Your task to perform on an android device: open sync settings in chrome Image 0: 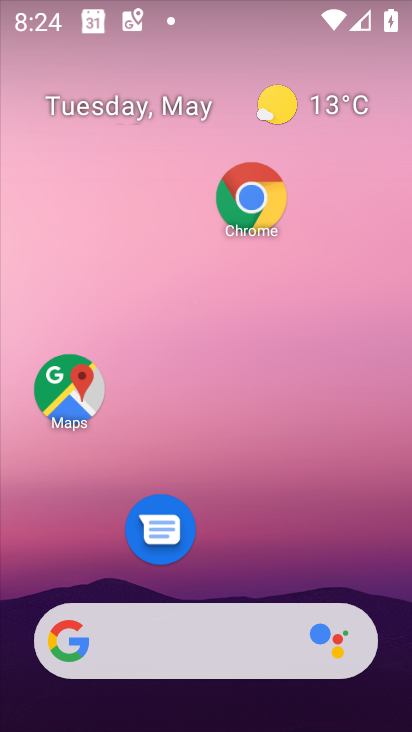
Step 0: click (269, 204)
Your task to perform on an android device: open sync settings in chrome Image 1: 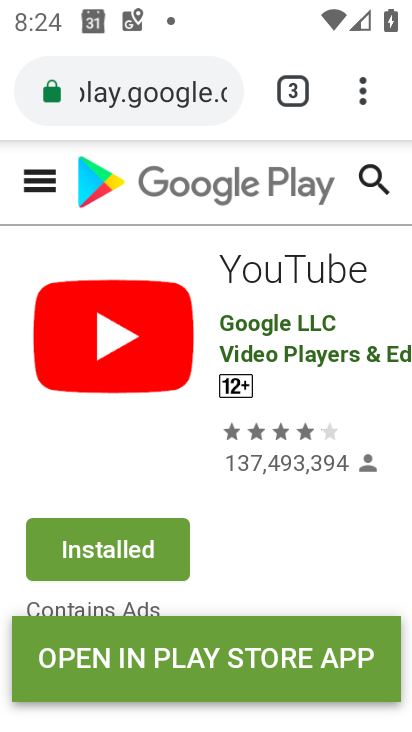
Step 1: press home button
Your task to perform on an android device: open sync settings in chrome Image 2: 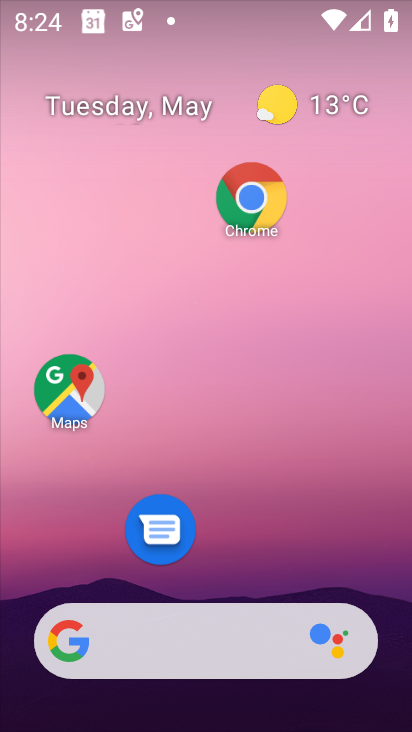
Step 2: click (255, 179)
Your task to perform on an android device: open sync settings in chrome Image 3: 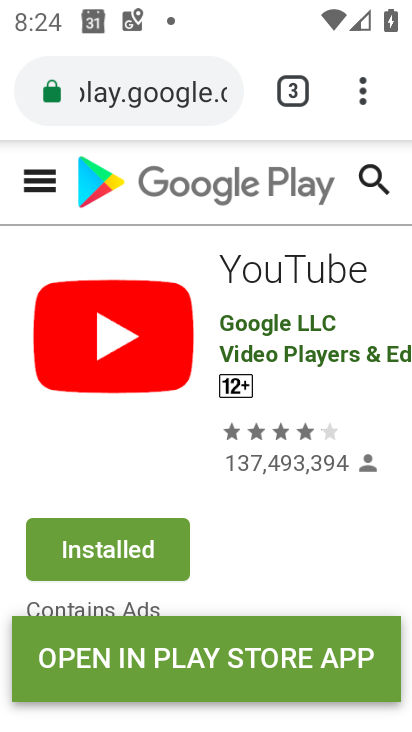
Step 3: click (360, 91)
Your task to perform on an android device: open sync settings in chrome Image 4: 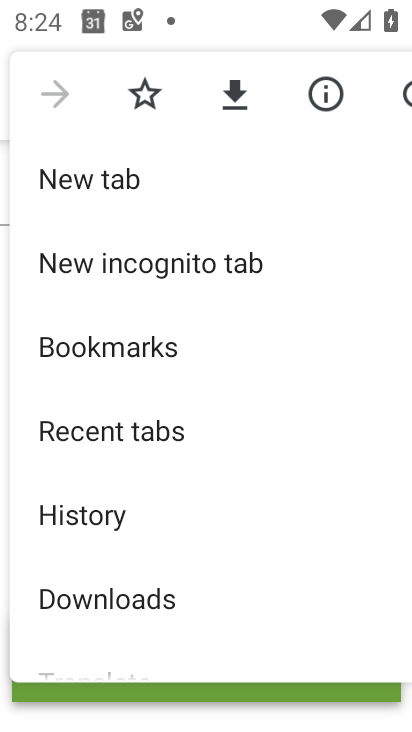
Step 4: drag from (201, 646) to (256, 256)
Your task to perform on an android device: open sync settings in chrome Image 5: 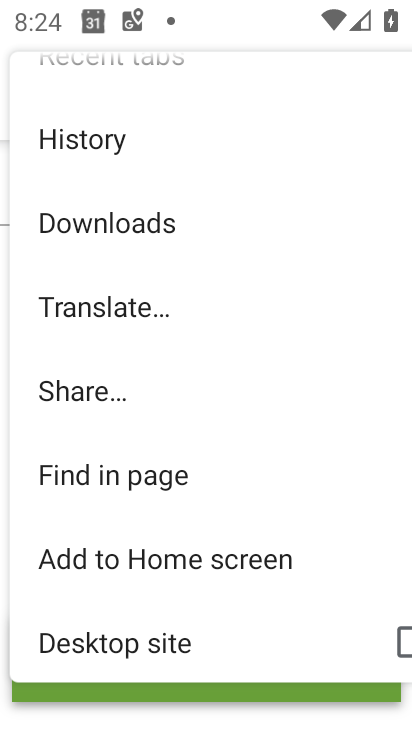
Step 5: drag from (250, 589) to (270, 287)
Your task to perform on an android device: open sync settings in chrome Image 6: 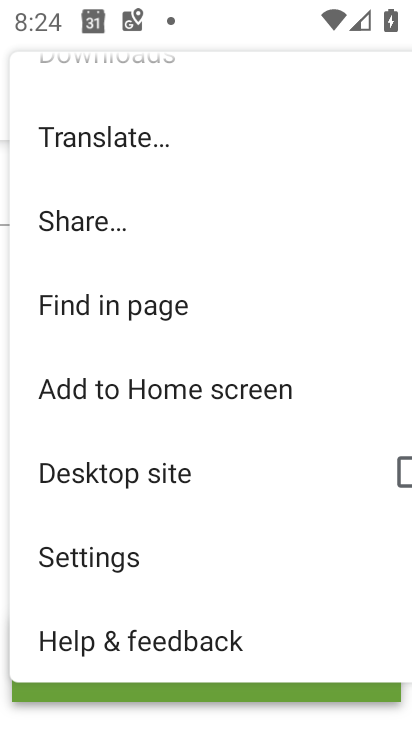
Step 6: click (169, 550)
Your task to perform on an android device: open sync settings in chrome Image 7: 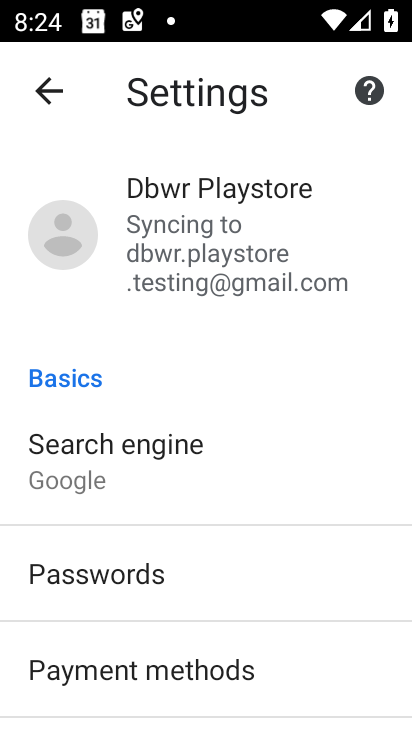
Step 7: drag from (292, 572) to (299, 386)
Your task to perform on an android device: open sync settings in chrome Image 8: 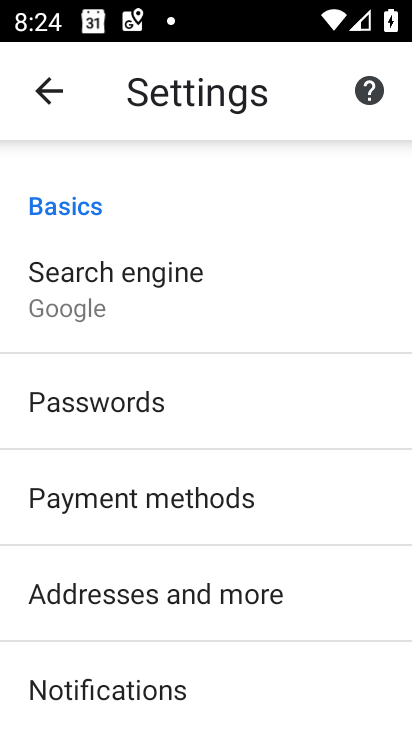
Step 8: drag from (237, 624) to (291, 236)
Your task to perform on an android device: open sync settings in chrome Image 9: 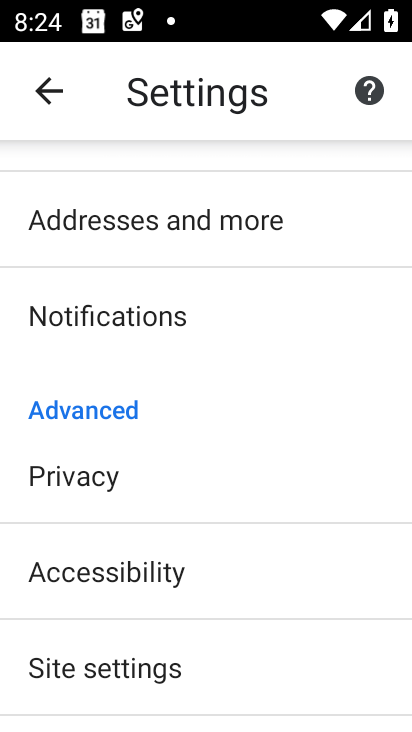
Step 9: drag from (256, 597) to (270, 387)
Your task to perform on an android device: open sync settings in chrome Image 10: 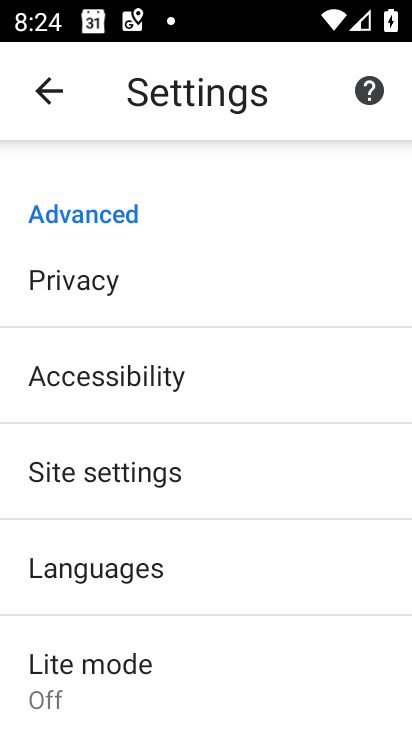
Step 10: drag from (239, 312) to (294, 696)
Your task to perform on an android device: open sync settings in chrome Image 11: 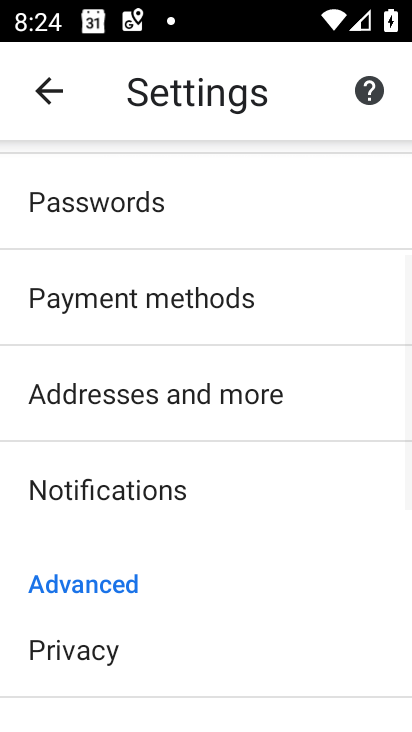
Step 11: drag from (261, 276) to (327, 727)
Your task to perform on an android device: open sync settings in chrome Image 12: 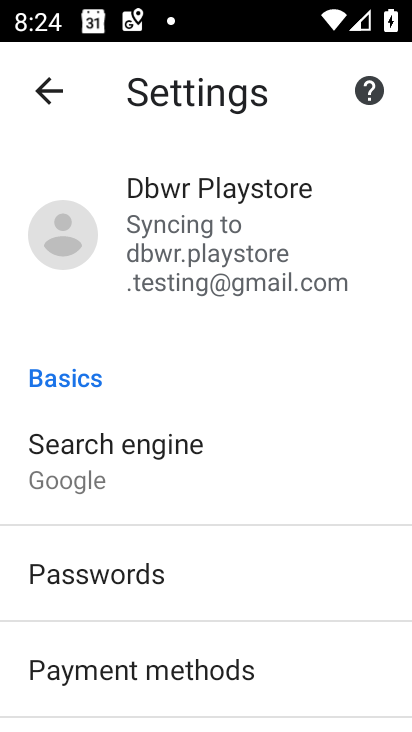
Step 12: click (251, 301)
Your task to perform on an android device: open sync settings in chrome Image 13: 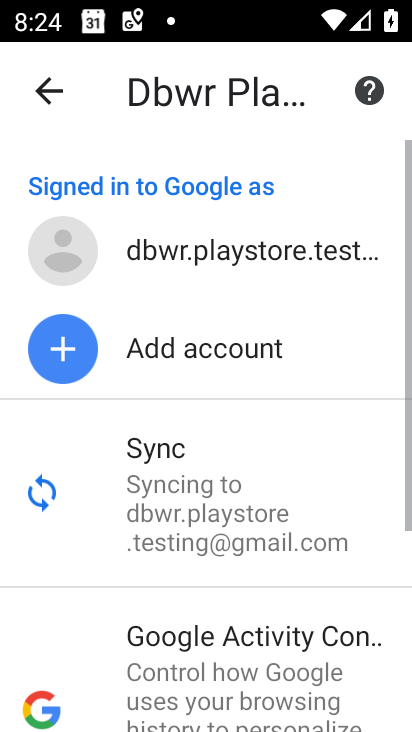
Step 13: click (250, 463)
Your task to perform on an android device: open sync settings in chrome Image 14: 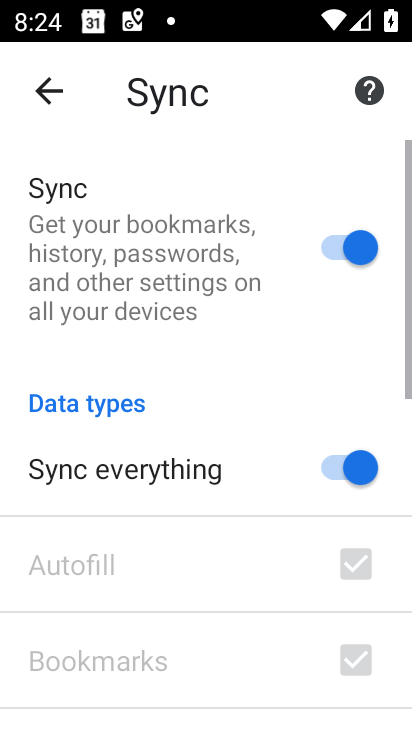
Step 14: task complete